Your task to perform on an android device: What's the weather going to be this weekend? Image 0: 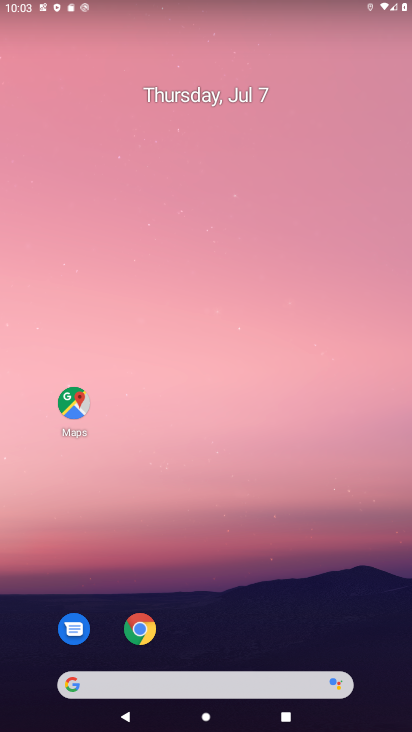
Step 0: drag from (10, 253) to (339, 203)
Your task to perform on an android device: What's the weather going to be this weekend? Image 1: 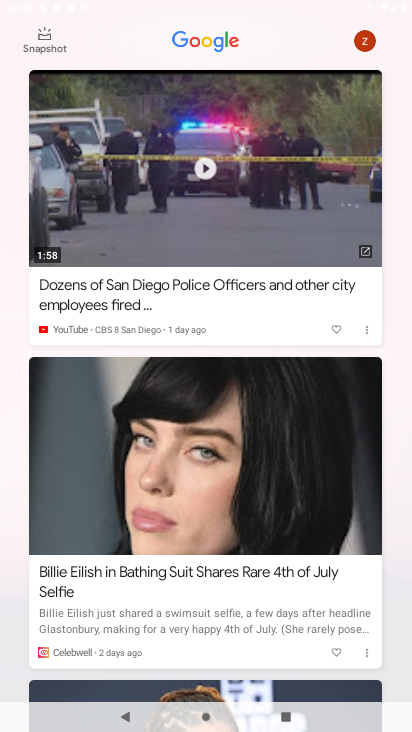
Step 1: drag from (390, 285) to (403, 515)
Your task to perform on an android device: What's the weather going to be this weekend? Image 2: 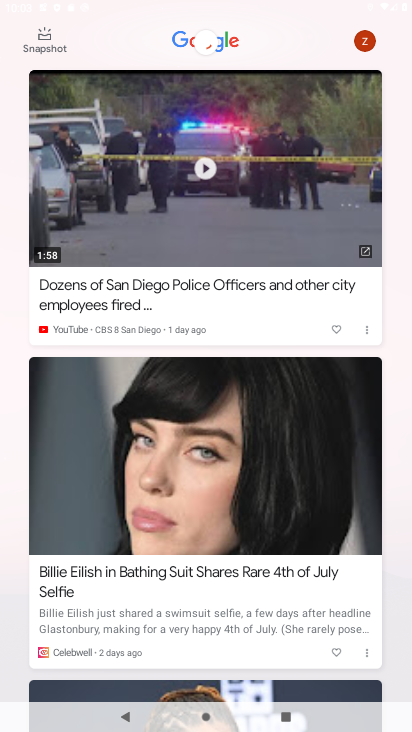
Step 2: drag from (311, 346) to (302, 603)
Your task to perform on an android device: What's the weather going to be this weekend? Image 3: 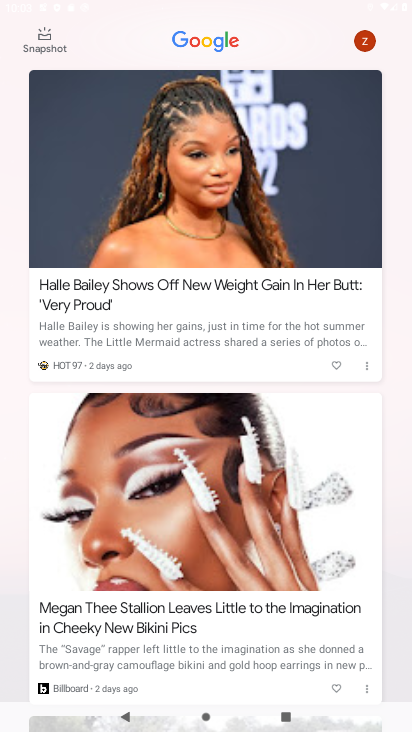
Step 3: drag from (386, 492) to (18, 438)
Your task to perform on an android device: What's the weather going to be this weekend? Image 4: 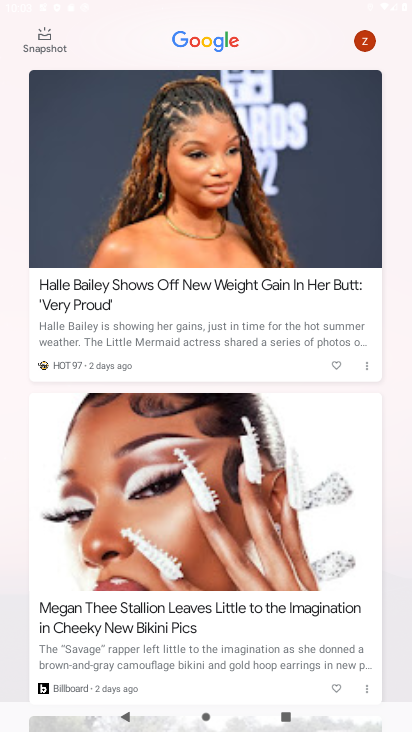
Step 4: drag from (395, 337) to (26, 356)
Your task to perform on an android device: What's the weather going to be this weekend? Image 5: 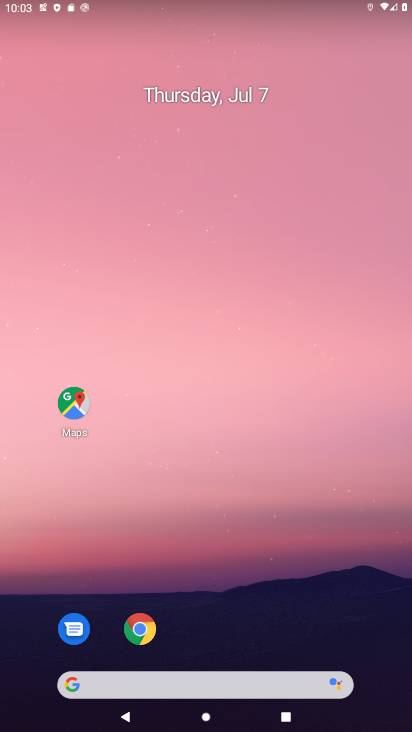
Step 5: click (161, 679)
Your task to perform on an android device: What's the weather going to be this weekend? Image 6: 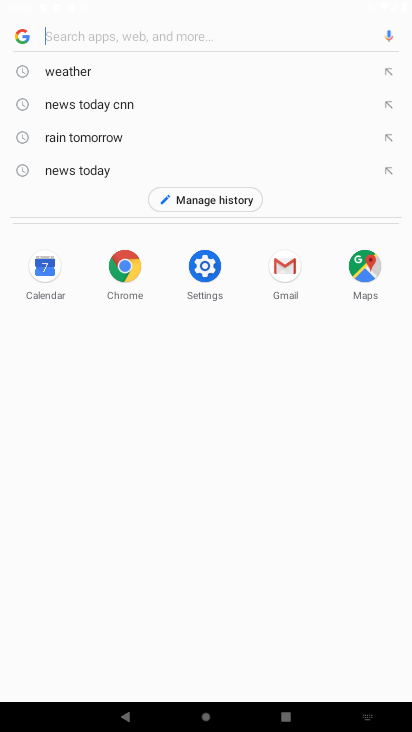
Step 6: click (71, 69)
Your task to perform on an android device: What's the weather going to be this weekend? Image 7: 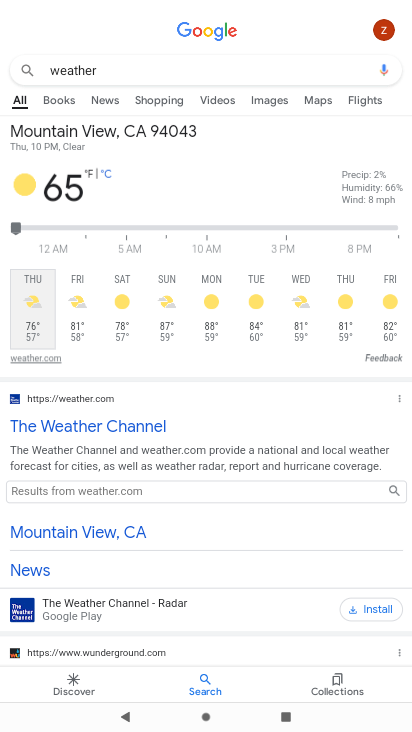
Step 7: drag from (203, 429) to (175, 129)
Your task to perform on an android device: What's the weather going to be this weekend? Image 8: 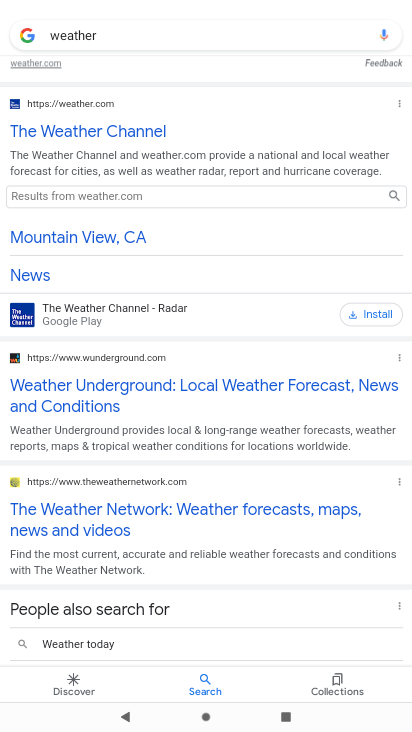
Step 8: drag from (169, 103) to (174, 445)
Your task to perform on an android device: What's the weather going to be this weekend? Image 9: 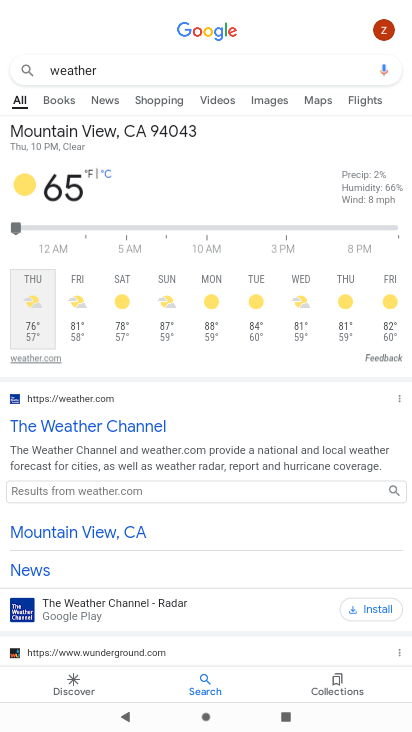
Step 9: click (86, 427)
Your task to perform on an android device: What's the weather going to be this weekend? Image 10: 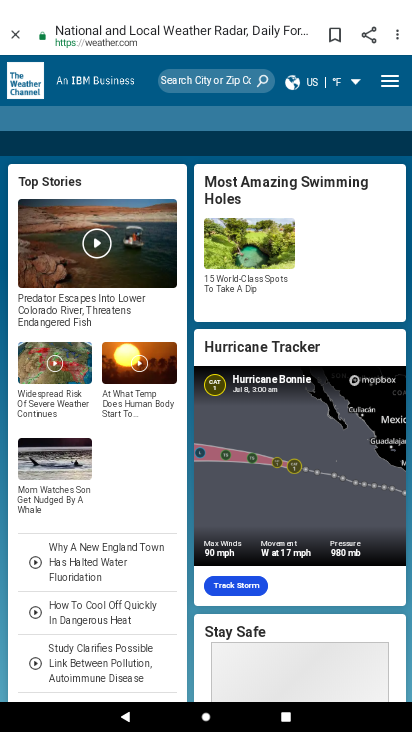
Step 10: task complete